Your task to perform on an android device: Go to sound settings Image 0: 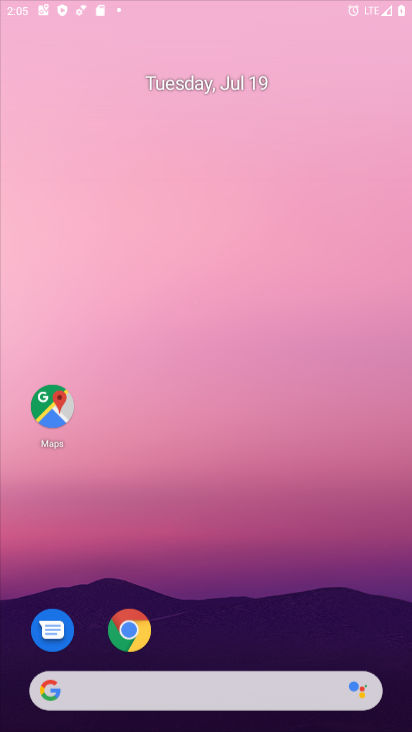
Step 0: press home button
Your task to perform on an android device: Go to sound settings Image 1: 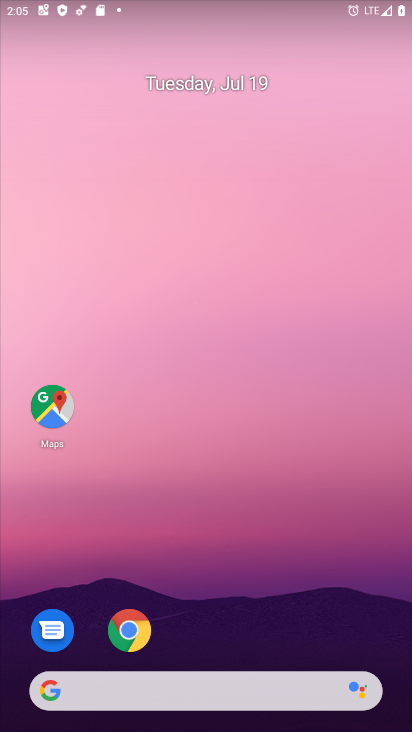
Step 1: drag from (213, 659) to (238, 0)
Your task to perform on an android device: Go to sound settings Image 2: 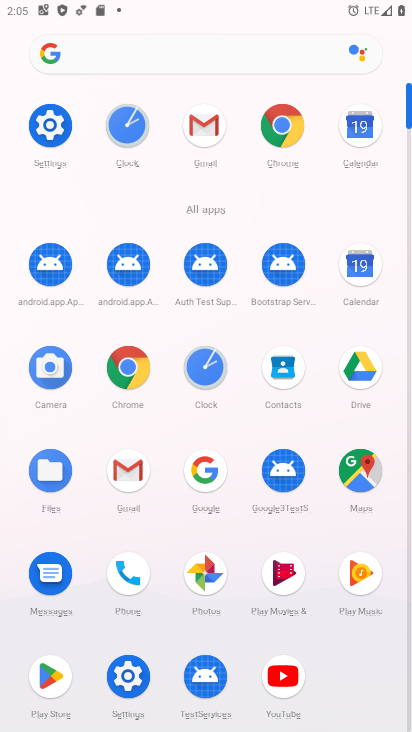
Step 2: click (47, 121)
Your task to perform on an android device: Go to sound settings Image 3: 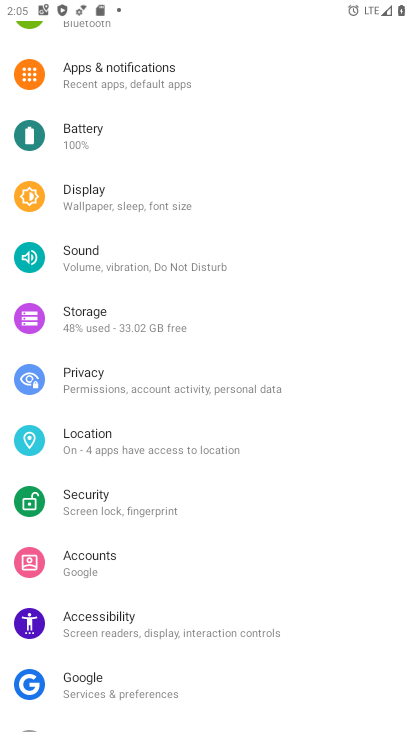
Step 3: click (108, 250)
Your task to perform on an android device: Go to sound settings Image 4: 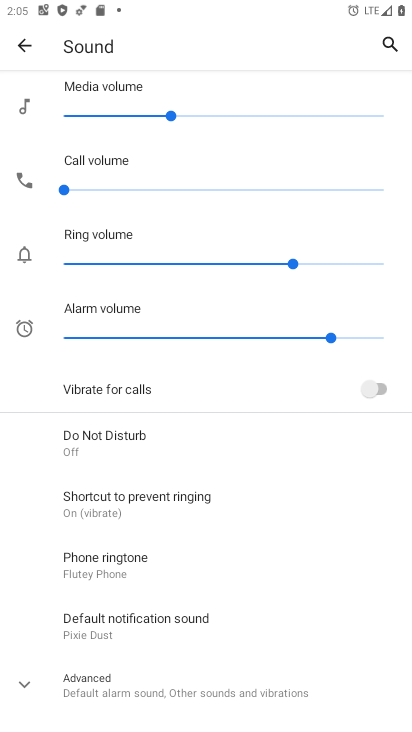
Step 4: click (29, 675)
Your task to perform on an android device: Go to sound settings Image 5: 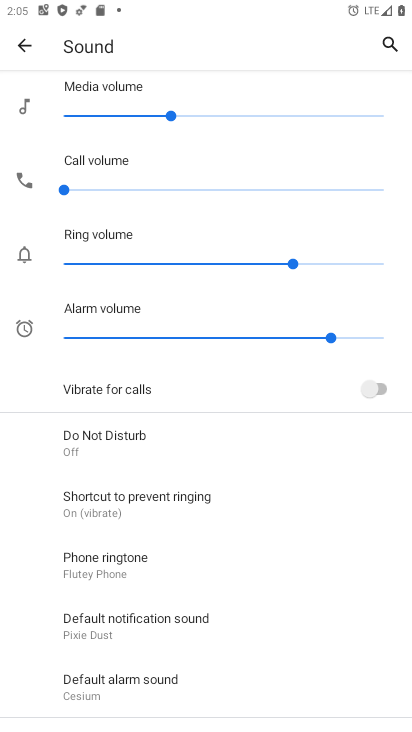
Step 5: task complete